Your task to perform on an android device: snooze an email in the gmail app Image 0: 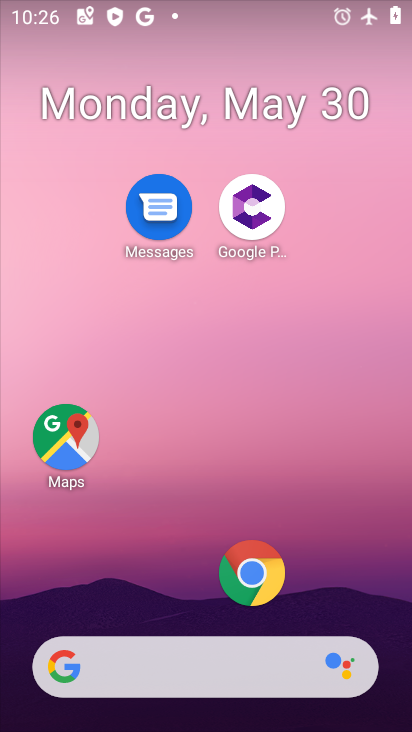
Step 0: click (408, 304)
Your task to perform on an android device: snooze an email in the gmail app Image 1: 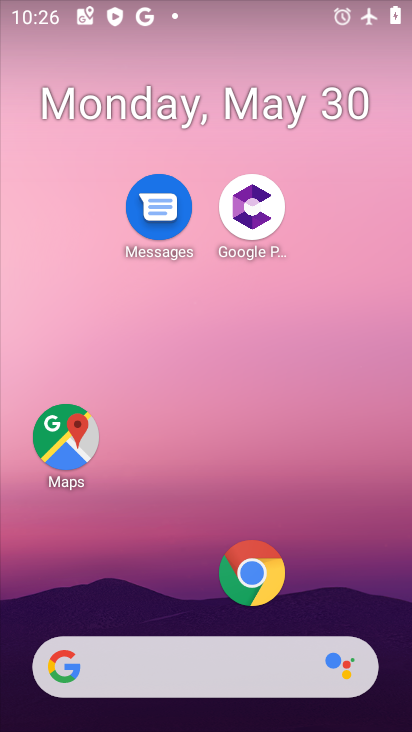
Step 1: drag from (179, 624) to (176, 91)
Your task to perform on an android device: snooze an email in the gmail app Image 2: 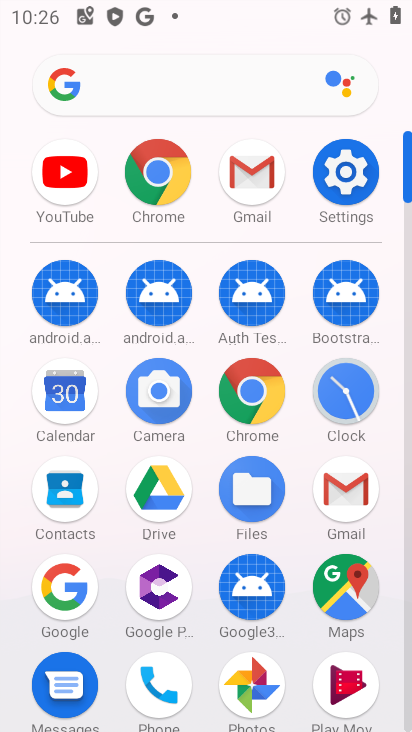
Step 2: click (361, 493)
Your task to perform on an android device: snooze an email in the gmail app Image 3: 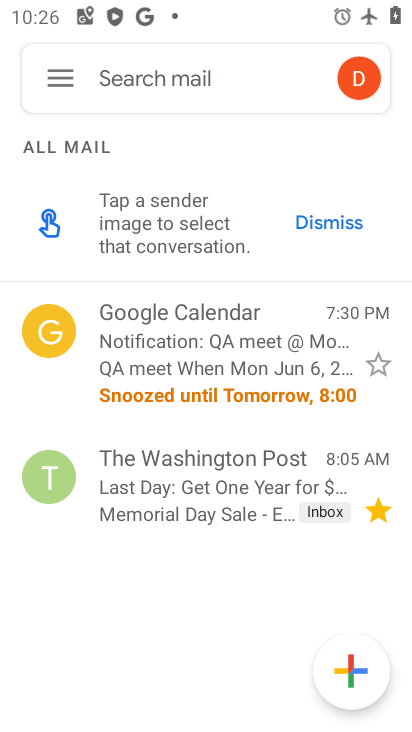
Step 3: click (188, 516)
Your task to perform on an android device: snooze an email in the gmail app Image 4: 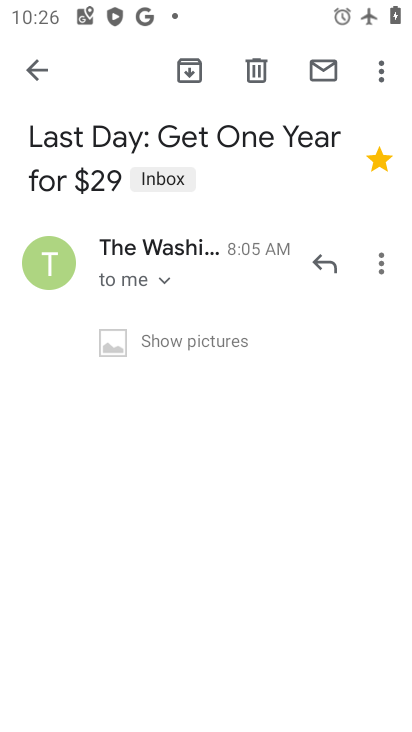
Step 4: click (373, 75)
Your task to perform on an android device: snooze an email in the gmail app Image 5: 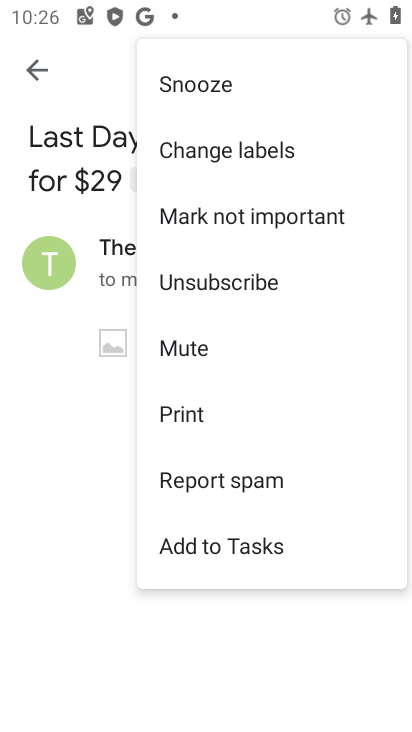
Step 5: click (233, 84)
Your task to perform on an android device: snooze an email in the gmail app Image 6: 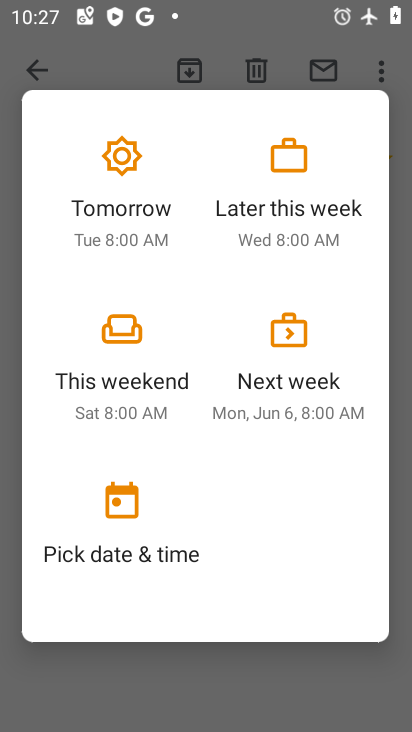
Step 6: click (289, 223)
Your task to perform on an android device: snooze an email in the gmail app Image 7: 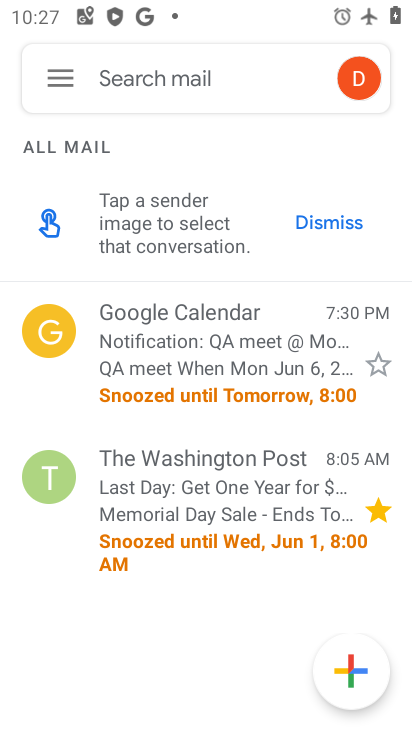
Step 7: task complete